Your task to perform on an android device: all mails in gmail Image 0: 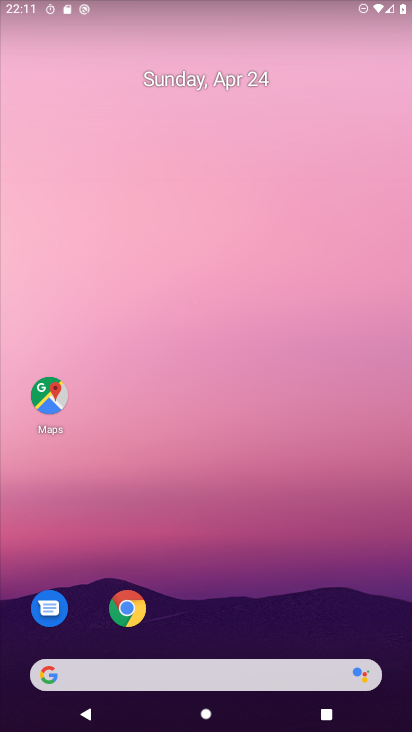
Step 0: drag from (286, 571) to (257, 58)
Your task to perform on an android device: all mails in gmail Image 1: 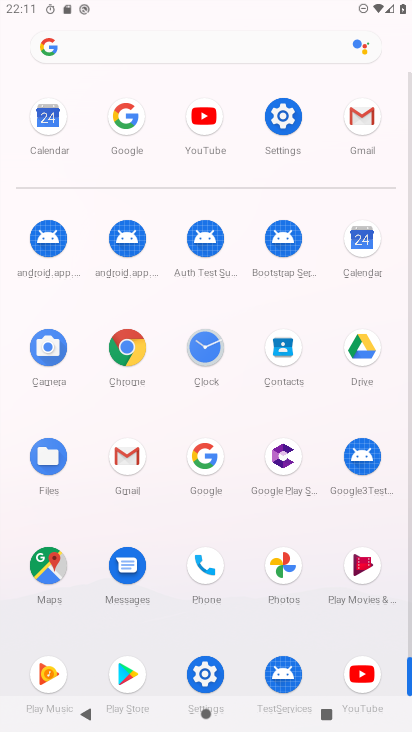
Step 1: click (367, 107)
Your task to perform on an android device: all mails in gmail Image 2: 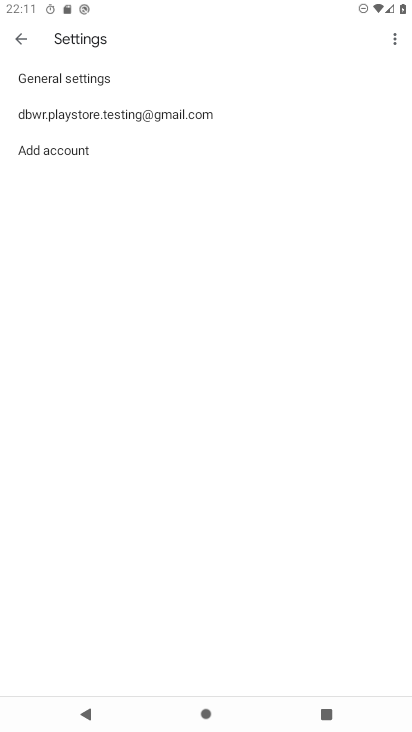
Step 2: click (18, 34)
Your task to perform on an android device: all mails in gmail Image 3: 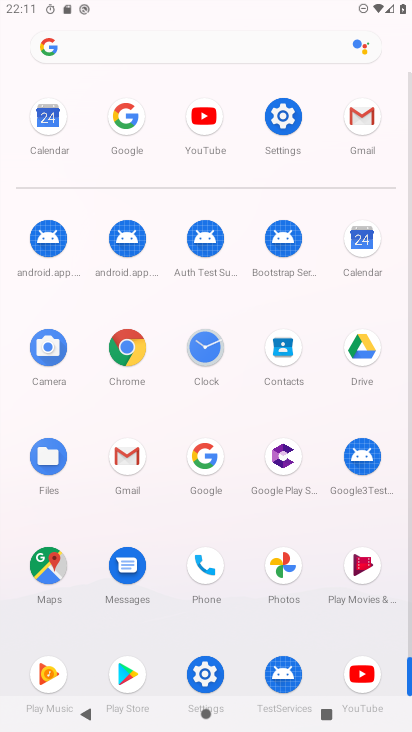
Step 3: click (365, 109)
Your task to perform on an android device: all mails in gmail Image 4: 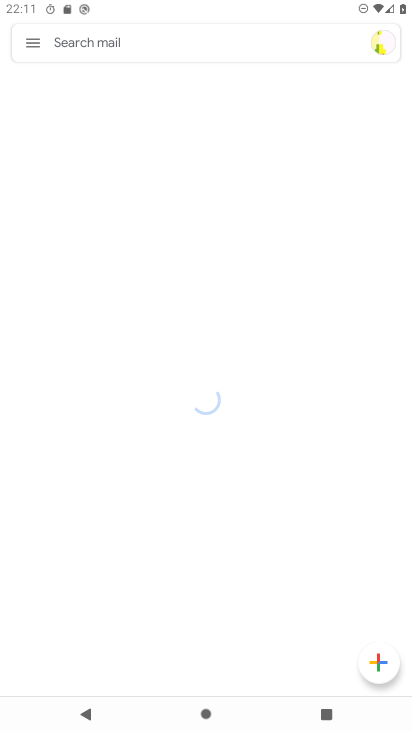
Step 4: click (31, 41)
Your task to perform on an android device: all mails in gmail Image 5: 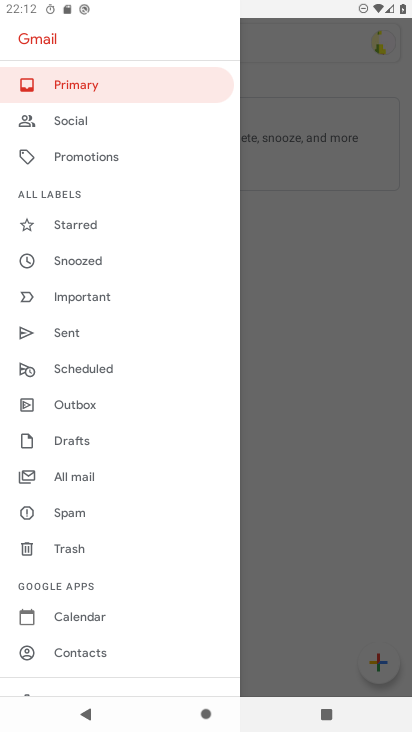
Step 5: click (135, 476)
Your task to perform on an android device: all mails in gmail Image 6: 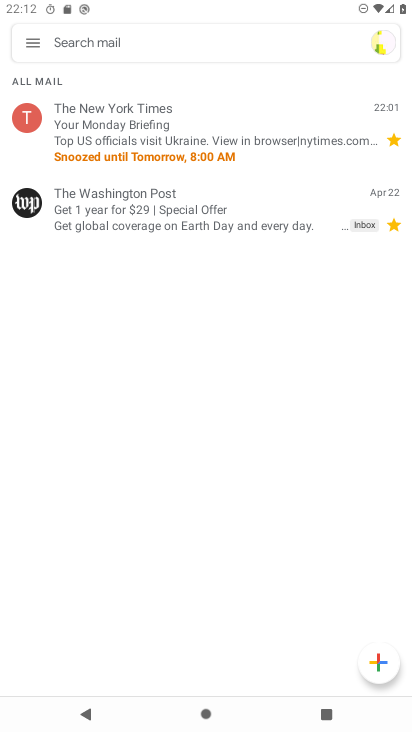
Step 6: task complete